Your task to perform on an android device: toggle improve location accuracy Image 0: 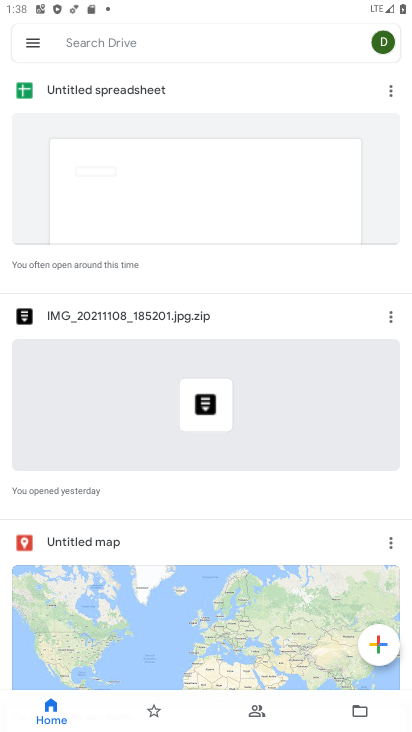
Step 0: press home button
Your task to perform on an android device: toggle improve location accuracy Image 1: 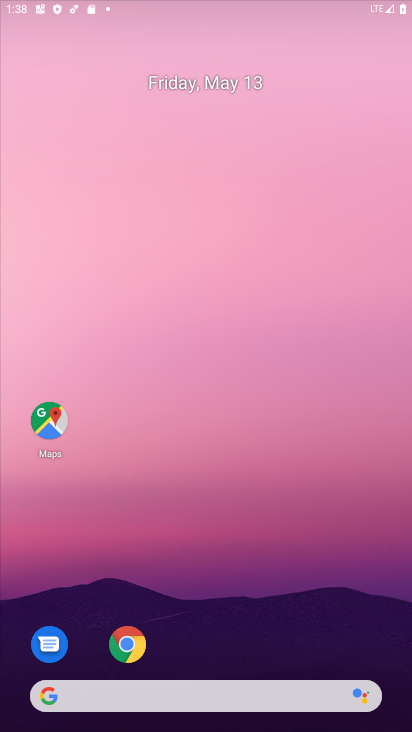
Step 1: drag from (350, 619) to (217, 66)
Your task to perform on an android device: toggle improve location accuracy Image 2: 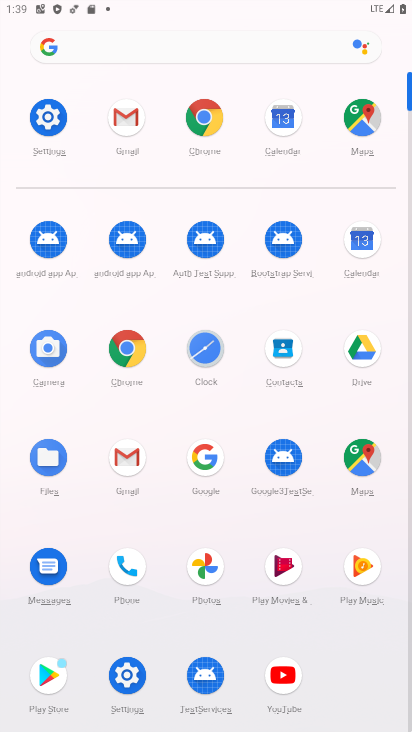
Step 2: click (131, 669)
Your task to perform on an android device: toggle improve location accuracy Image 3: 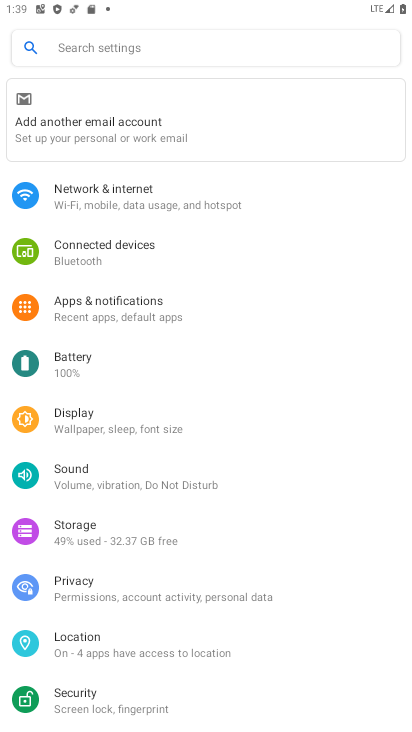
Step 3: click (124, 642)
Your task to perform on an android device: toggle improve location accuracy Image 4: 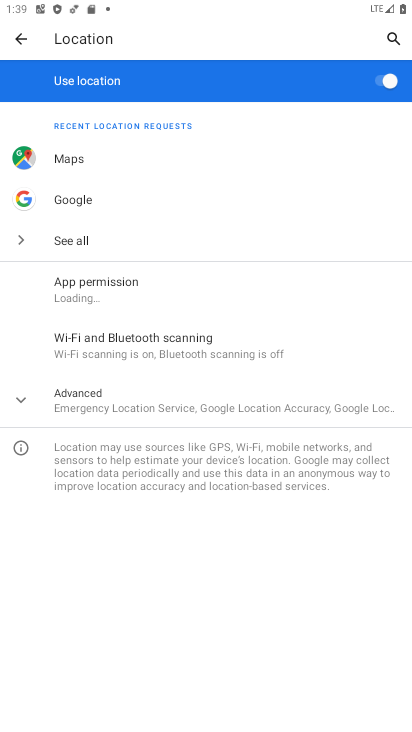
Step 4: click (86, 394)
Your task to perform on an android device: toggle improve location accuracy Image 5: 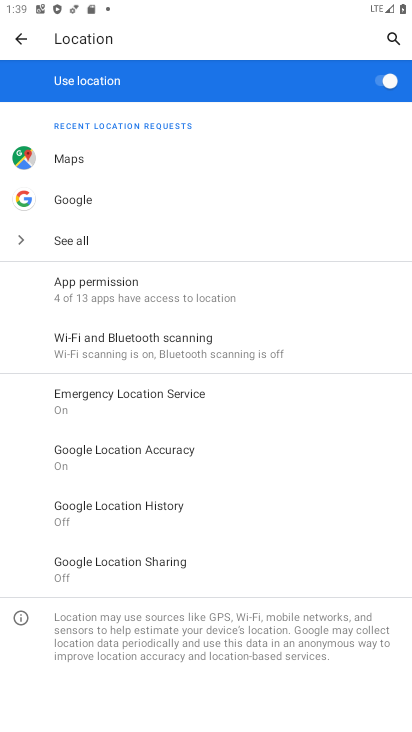
Step 5: click (175, 455)
Your task to perform on an android device: toggle improve location accuracy Image 6: 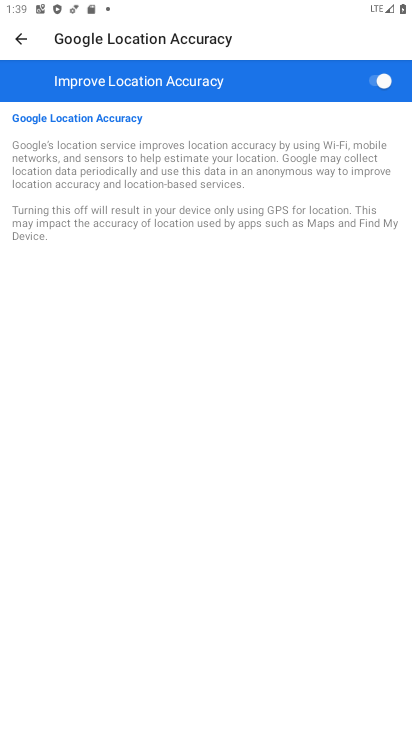
Step 6: click (359, 85)
Your task to perform on an android device: toggle improve location accuracy Image 7: 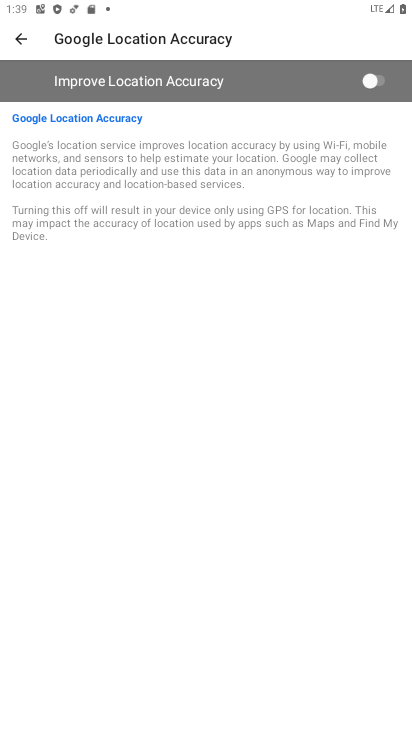
Step 7: task complete